Your task to perform on an android device: change the clock style Image 0: 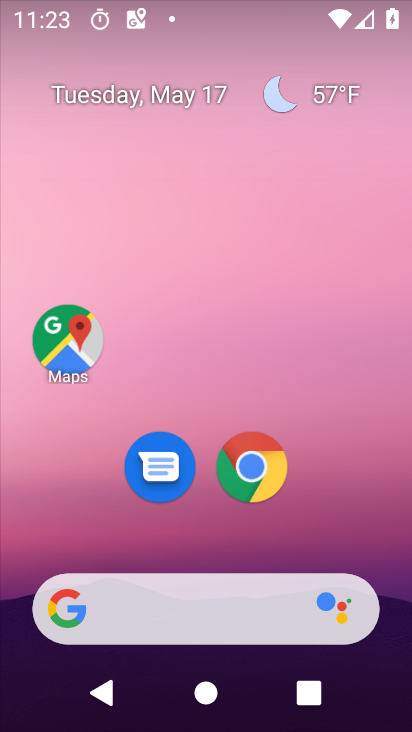
Step 0: drag from (215, 569) to (201, 217)
Your task to perform on an android device: change the clock style Image 1: 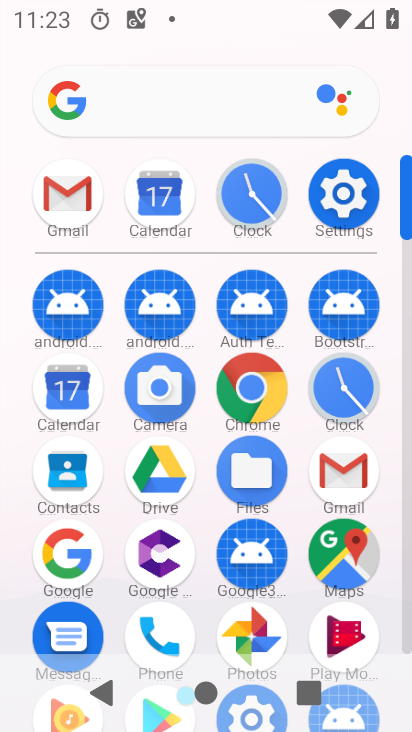
Step 1: click (348, 198)
Your task to perform on an android device: change the clock style Image 2: 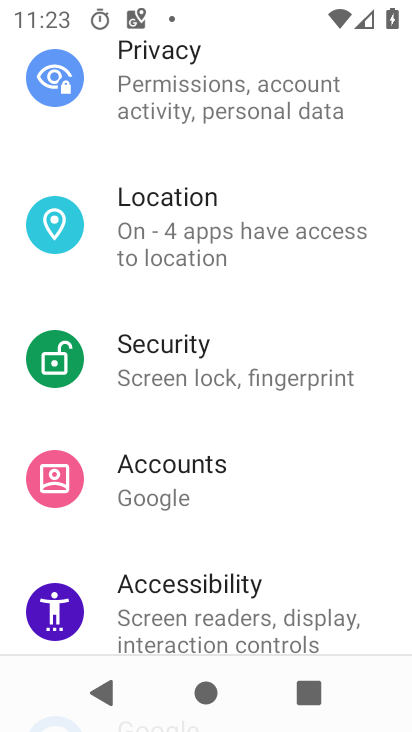
Step 2: press home button
Your task to perform on an android device: change the clock style Image 3: 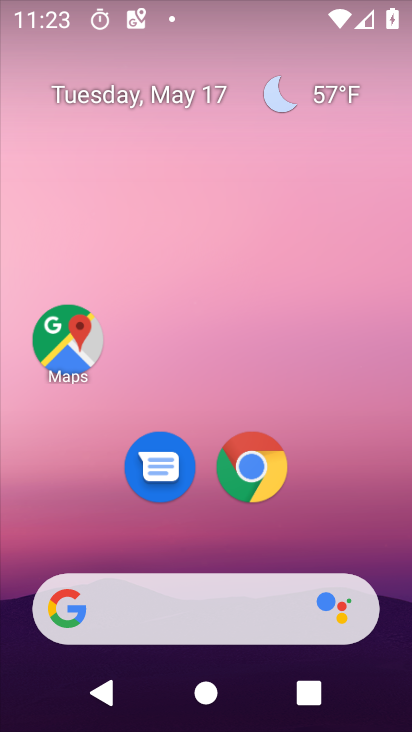
Step 3: drag from (200, 565) to (197, 196)
Your task to perform on an android device: change the clock style Image 4: 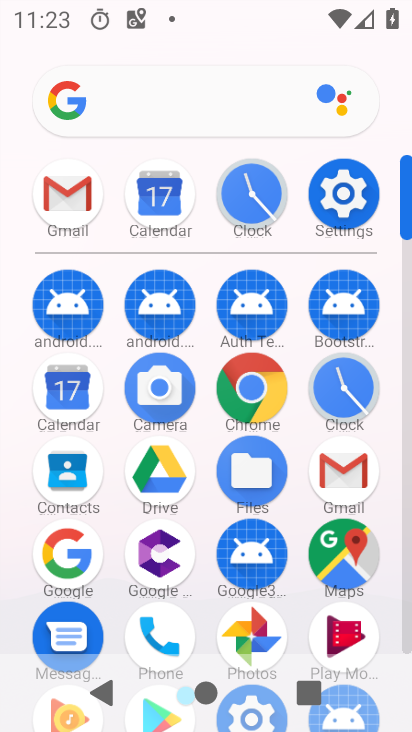
Step 4: click (345, 401)
Your task to perform on an android device: change the clock style Image 5: 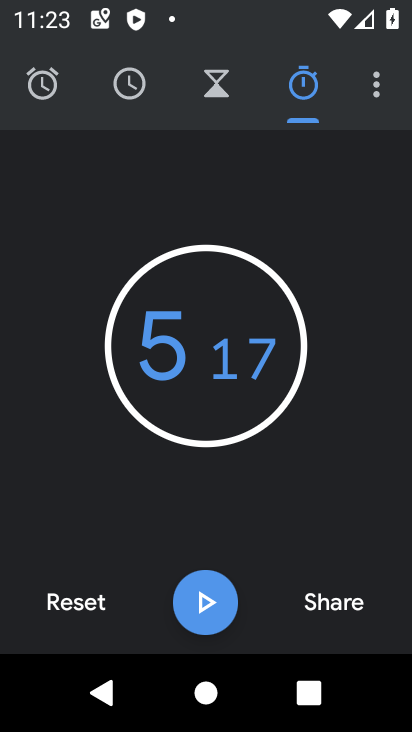
Step 5: click (375, 88)
Your task to perform on an android device: change the clock style Image 6: 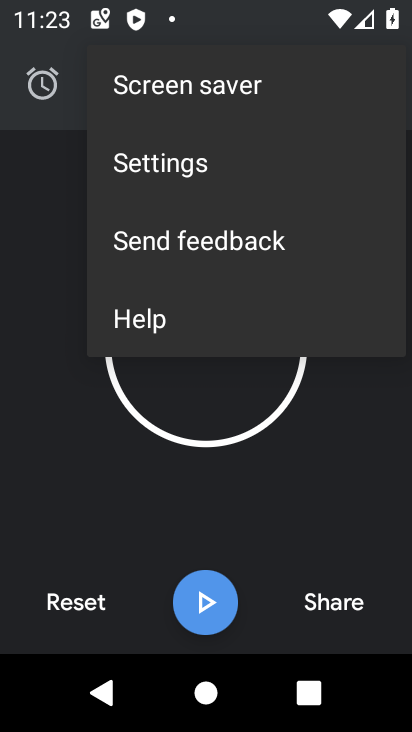
Step 6: click (136, 162)
Your task to perform on an android device: change the clock style Image 7: 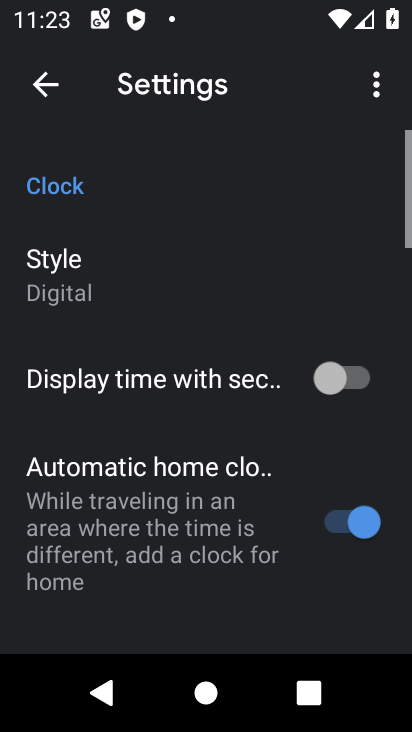
Step 7: click (57, 288)
Your task to perform on an android device: change the clock style Image 8: 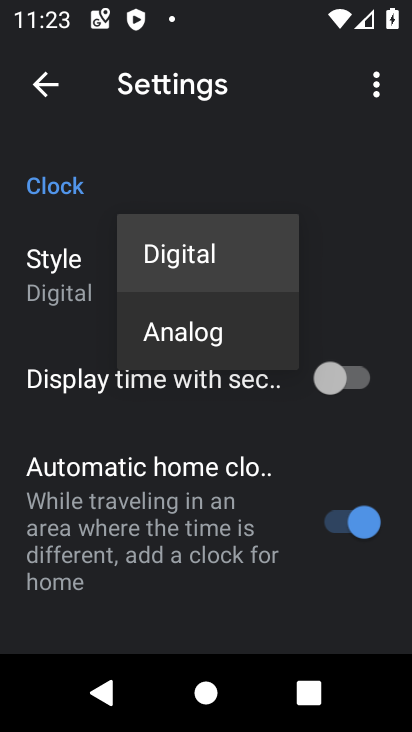
Step 8: click (181, 333)
Your task to perform on an android device: change the clock style Image 9: 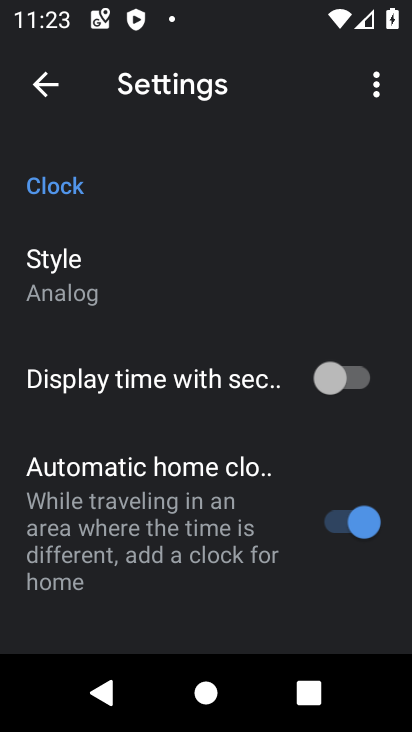
Step 9: task complete